Your task to perform on an android device: turn on improve location accuracy Image 0: 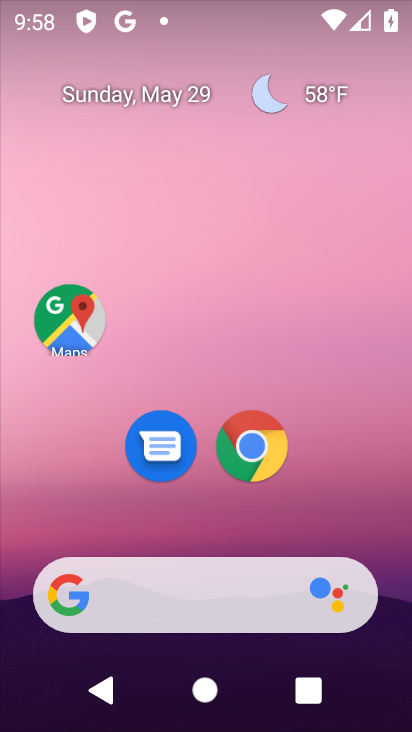
Step 0: drag from (375, 524) to (253, 35)
Your task to perform on an android device: turn on improve location accuracy Image 1: 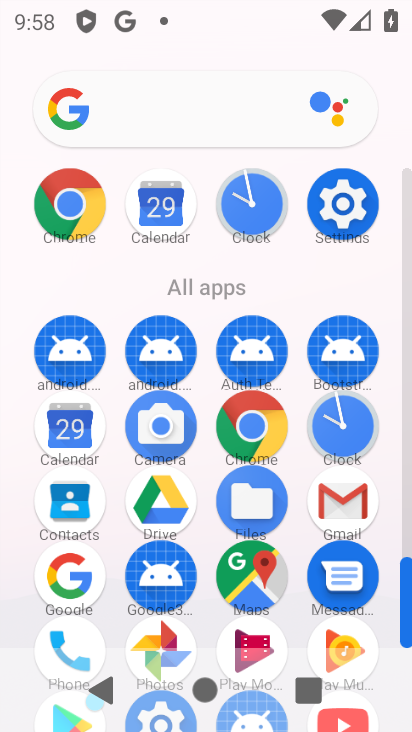
Step 1: drag from (5, 634) to (6, 279)
Your task to perform on an android device: turn on improve location accuracy Image 2: 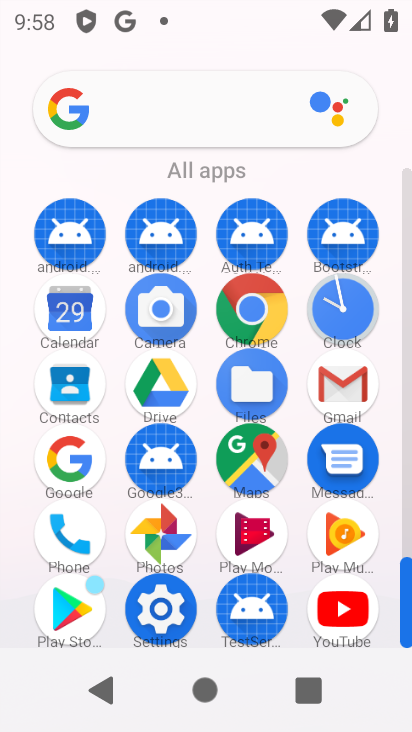
Step 2: click (163, 607)
Your task to perform on an android device: turn on improve location accuracy Image 3: 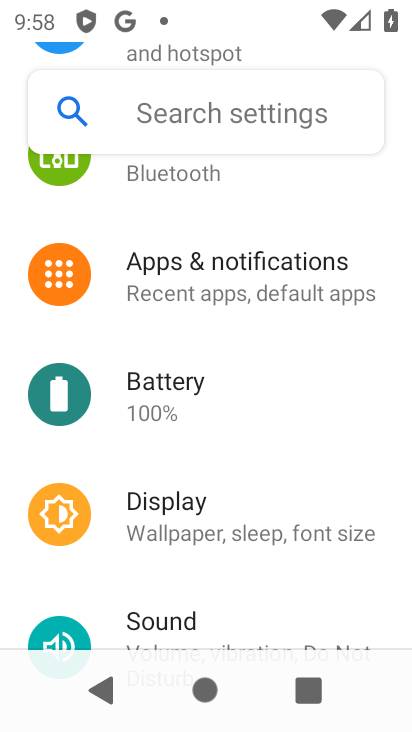
Step 3: drag from (312, 529) to (304, 177)
Your task to perform on an android device: turn on improve location accuracy Image 4: 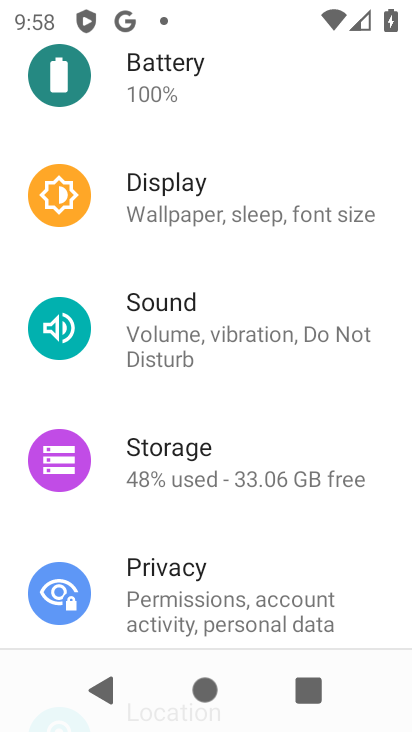
Step 4: drag from (271, 485) to (293, 159)
Your task to perform on an android device: turn on improve location accuracy Image 5: 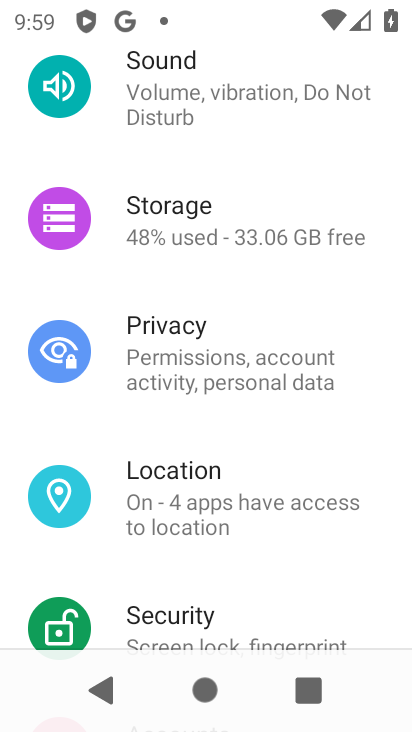
Step 5: click (241, 484)
Your task to perform on an android device: turn on improve location accuracy Image 6: 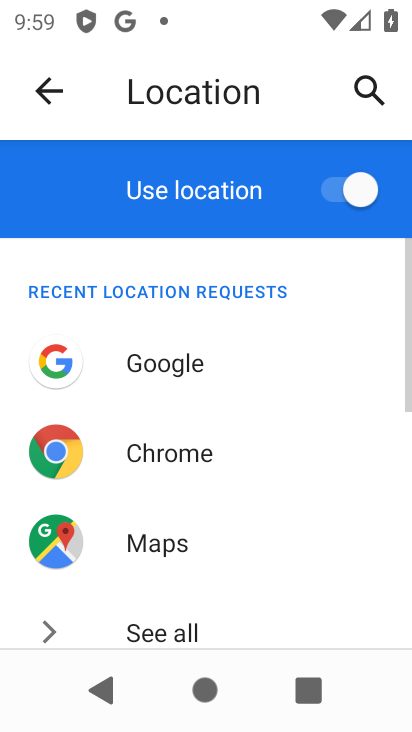
Step 6: drag from (261, 555) to (261, 183)
Your task to perform on an android device: turn on improve location accuracy Image 7: 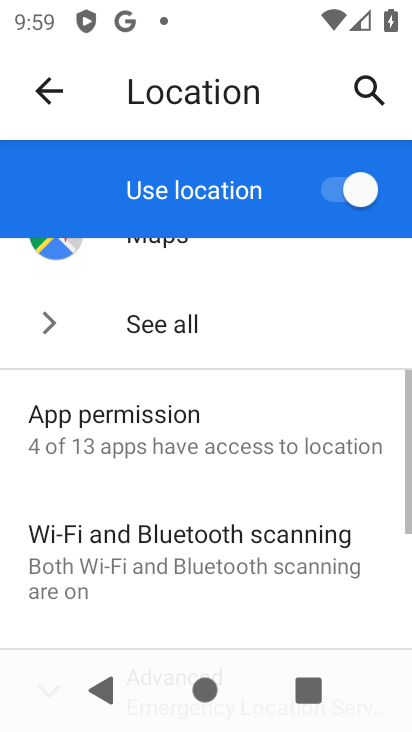
Step 7: drag from (210, 521) to (238, 229)
Your task to perform on an android device: turn on improve location accuracy Image 8: 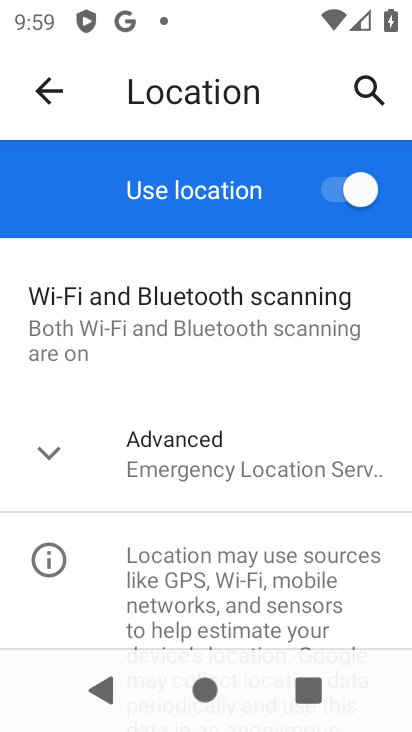
Step 8: click (61, 459)
Your task to perform on an android device: turn on improve location accuracy Image 9: 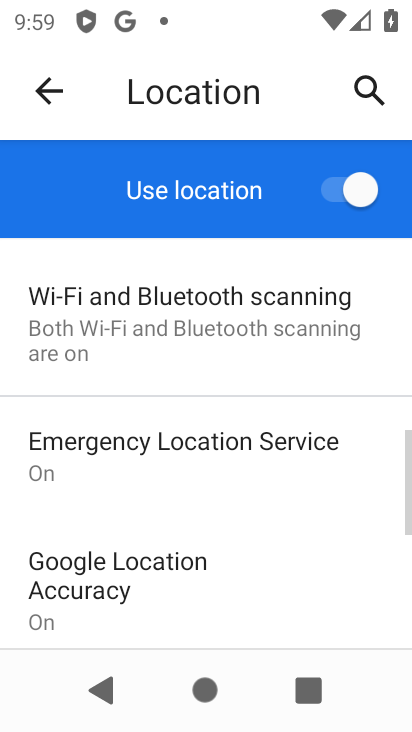
Step 9: drag from (288, 585) to (260, 303)
Your task to perform on an android device: turn on improve location accuracy Image 10: 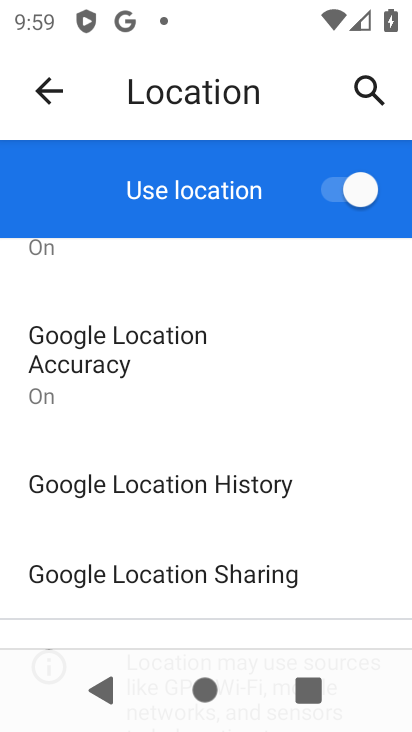
Step 10: drag from (223, 558) to (229, 226)
Your task to perform on an android device: turn on improve location accuracy Image 11: 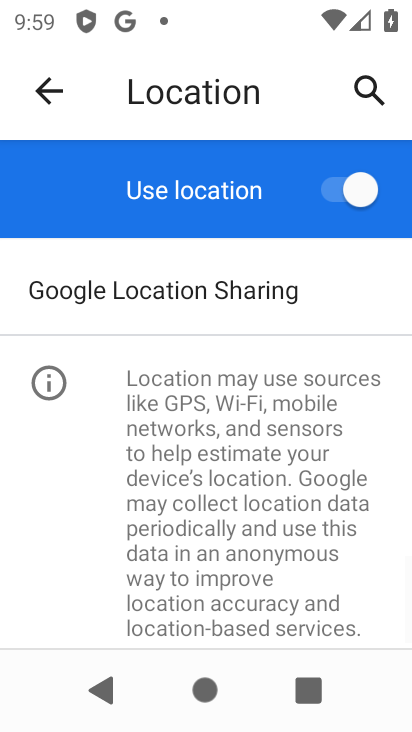
Step 11: click (229, 300)
Your task to perform on an android device: turn on improve location accuracy Image 12: 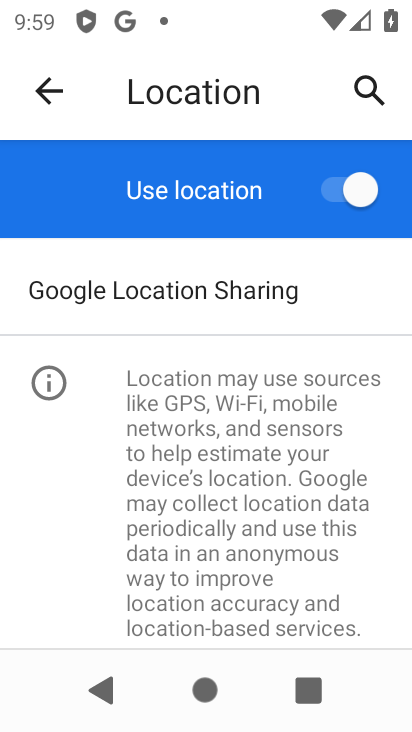
Step 12: task complete